Your task to perform on an android device: toggle improve location accuracy Image 0: 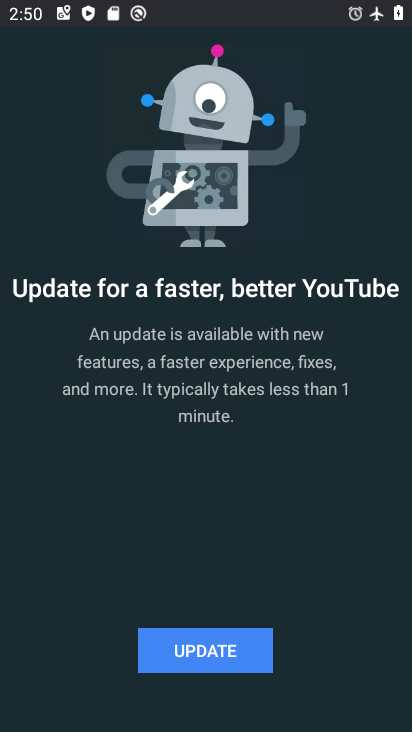
Step 0: press back button
Your task to perform on an android device: toggle improve location accuracy Image 1: 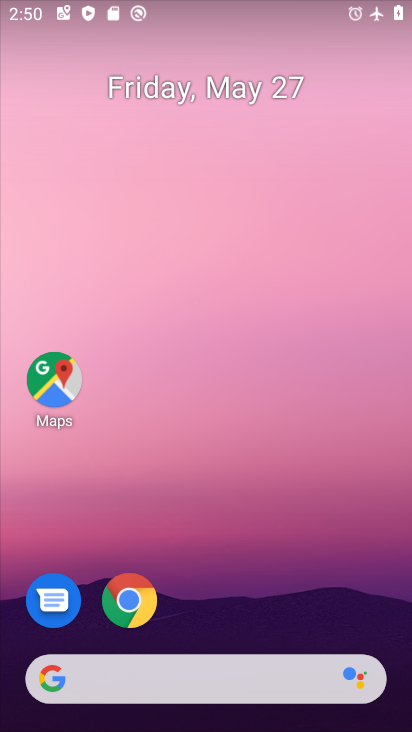
Step 1: drag from (277, 560) to (189, 44)
Your task to perform on an android device: toggle improve location accuracy Image 2: 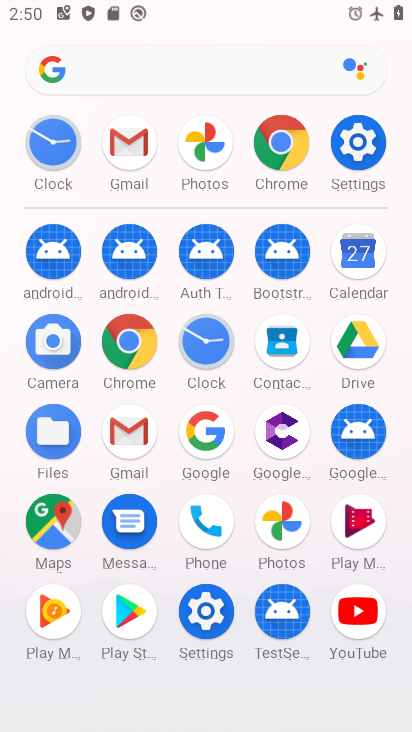
Step 2: drag from (11, 557) to (1, 289)
Your task to perform on an android device: toggle improve location accuracy Image 3: 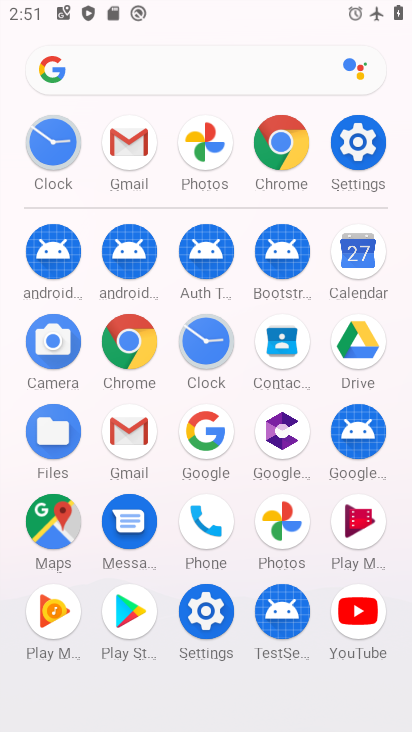
Step 3: click (202, 607)
Your task to perform on an android device: toggle improve location accuracy Image 4: 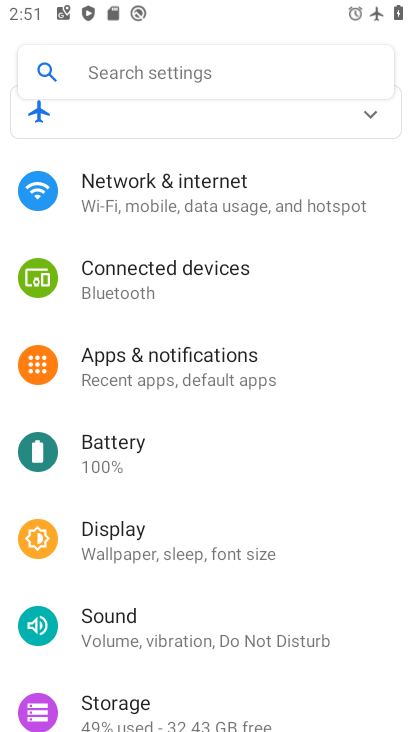
Step 4: drag from (255, 602) to (292, 265)
Your task to perform on an android device: toggle improve location accuracy Image 5: 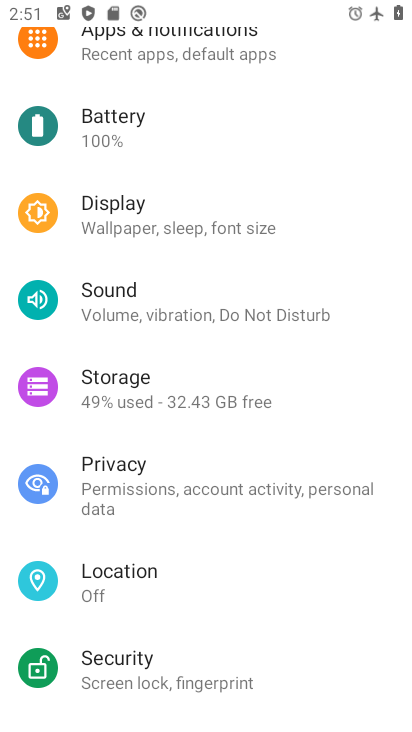
Step 5: drag from (223, 632) to (209, 256)
Your task to perform on an android device: toggle improve location accuracy Image 6: 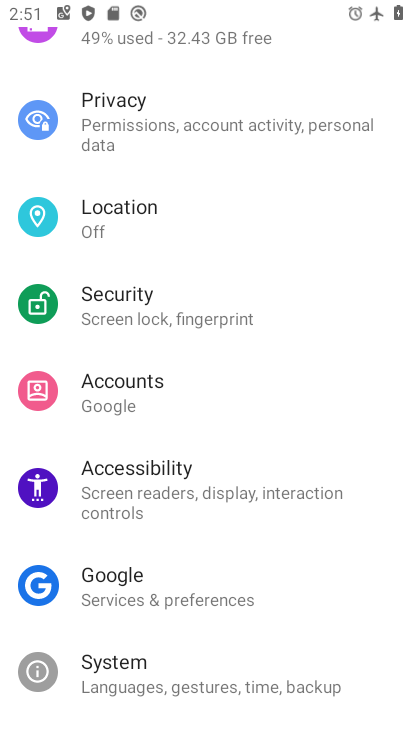
Step 6: click (161, 221)
Your task to perform on an android device: toggle improve location accuracy Image 7: 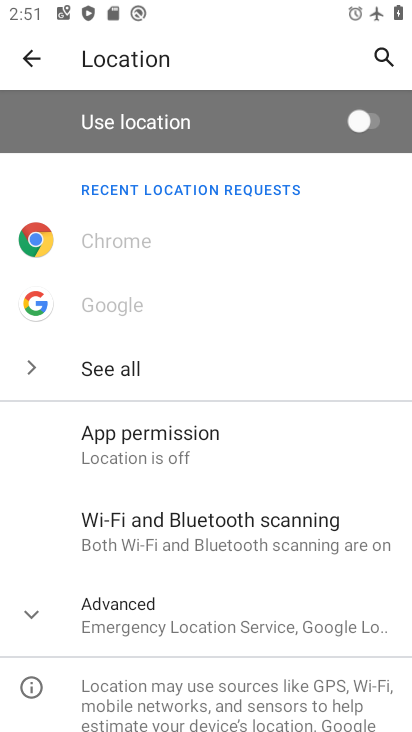
Step 7: drag from (181, 562) to (195, 248)
Your task to perform on an android device: toggle improve location accuracy Image 8: 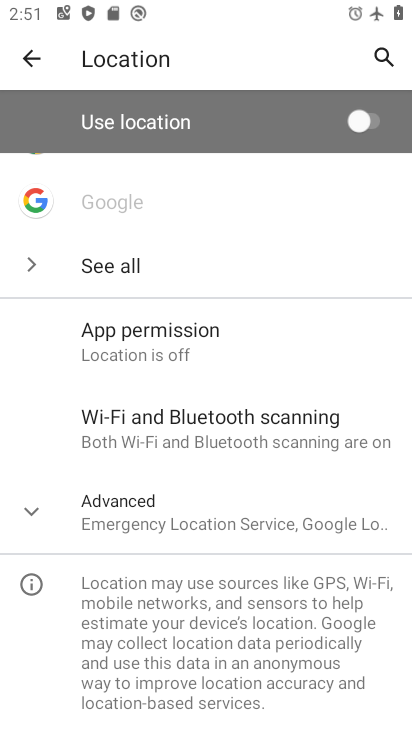
Step 8: click (35, 508)
Your task to perform on an android device: toggle improve location accuracy Image 9: 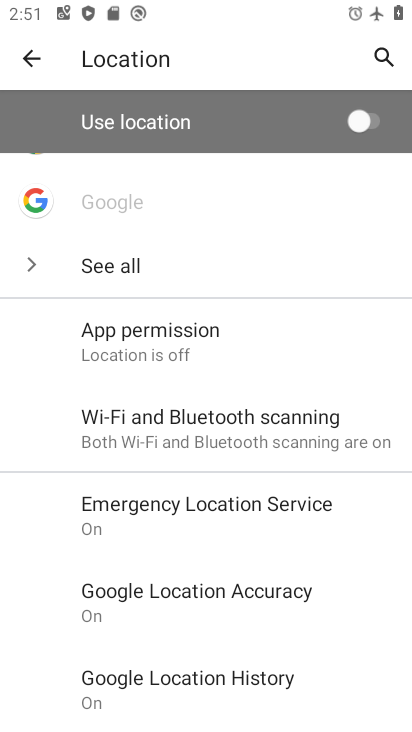
Step 9: drag from (346, 619) to (299, 260)
Your task to perform on an android device: toggle improve location accuracy Image 10: 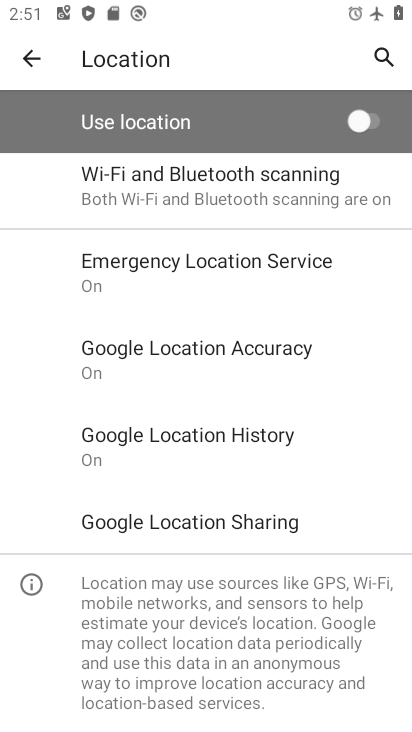
Step 10: click (249, 341)
Your task to perform on an android device: toggle improve location accuracy Image 11: 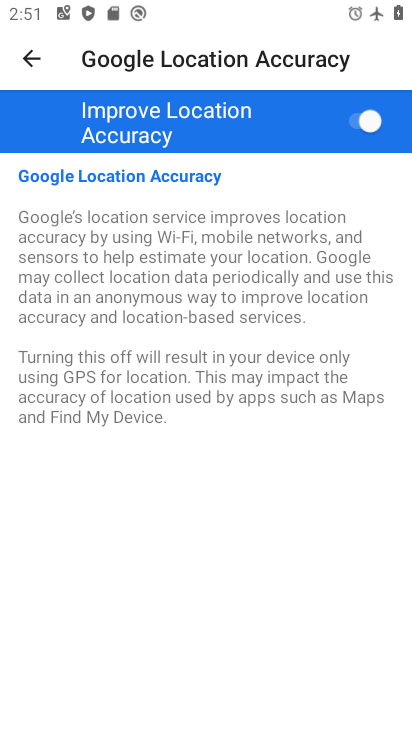
Step 11: click (351, 112)
Your task to perform on an android device: toggle improve location accuracy Image 12: 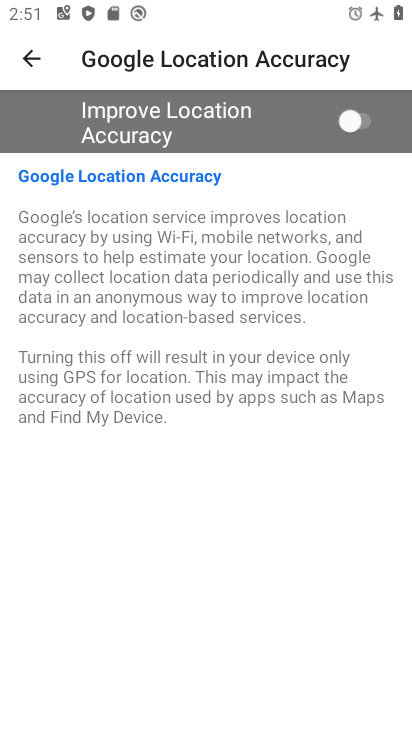
Step 12: task complete